Your task to perform on an android device: add a contact Image 0: 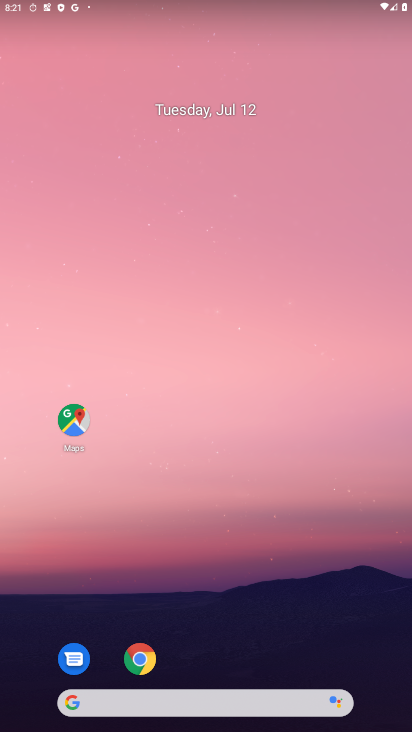
Step 0: press back button
Your task to perform on an android device: add a contact Image 1: 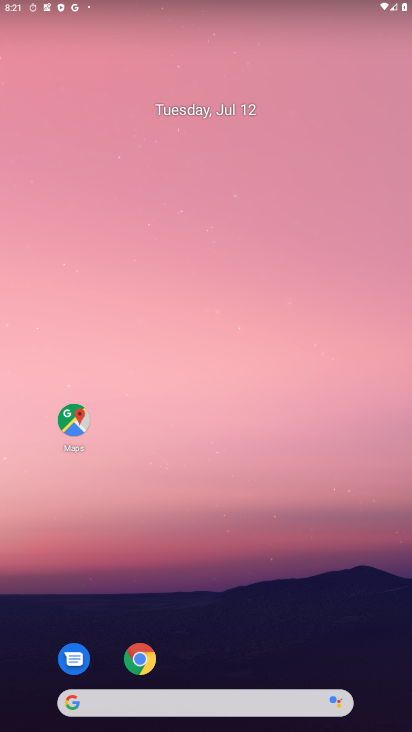
Step 1: drag from (278, 718) to (177, 282)
Your task to perform on an android device: add a contact Image 2: 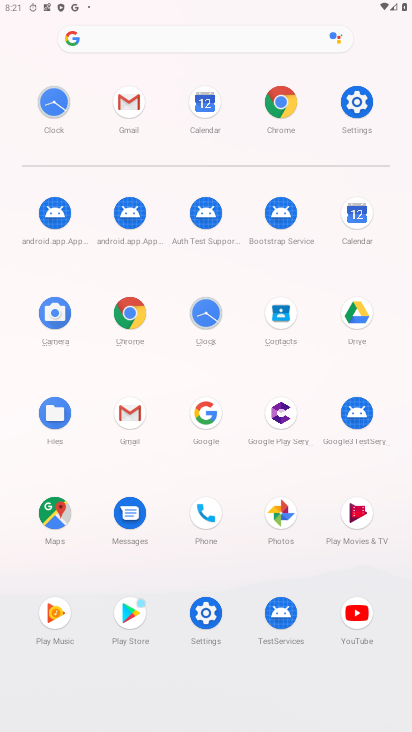
Step 2: click (281, 301)
Your task to perform on an android device: add a contact Image 3: 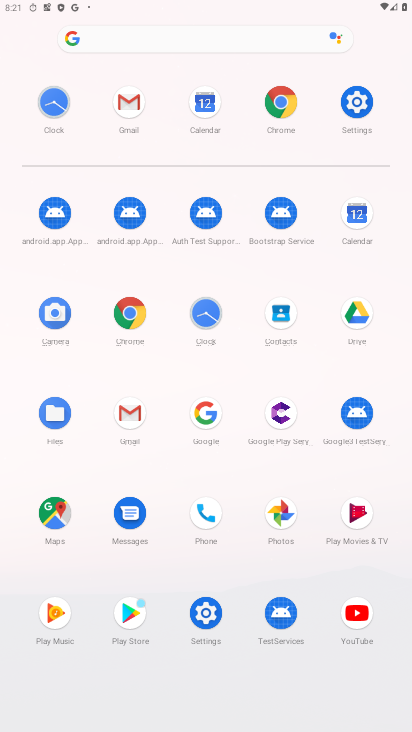
Step 3: click (282, 301)
Your task to perform on an android device: add a contact Image 4: 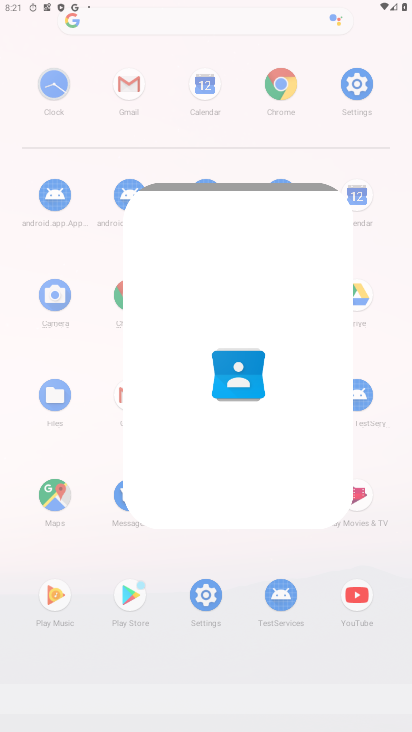
Step 4: click (282, 301)
Your task to perform on an android device: add a contact Image 5: 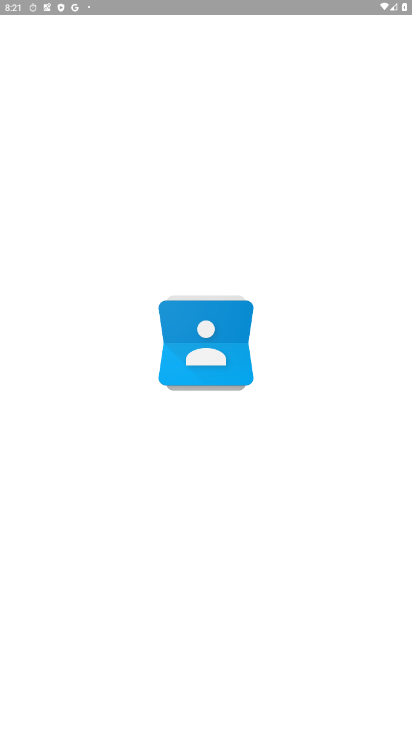
Step 5: click (283, 302)
Your task to perform on an android device: add a contact Image 6: 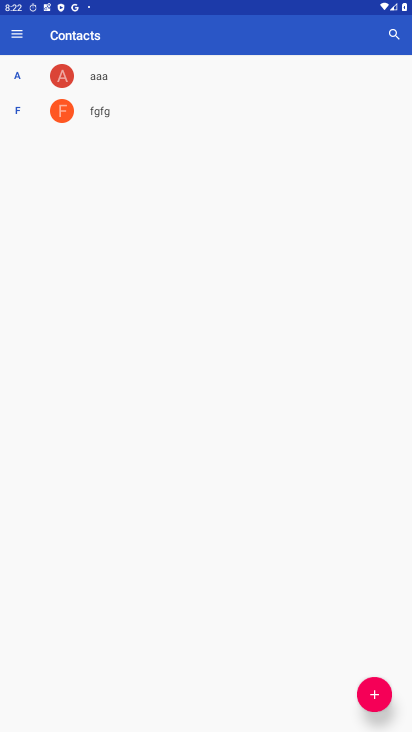
Step 6: click (377, 697)
Your task to perform on an android device: add a contact Image 7: 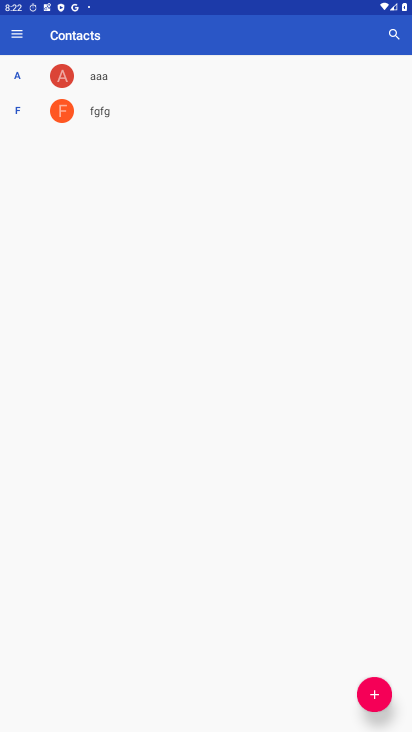
Step 7: click (377, 696)
Your task to perform on an android device: add a contact Image 8: 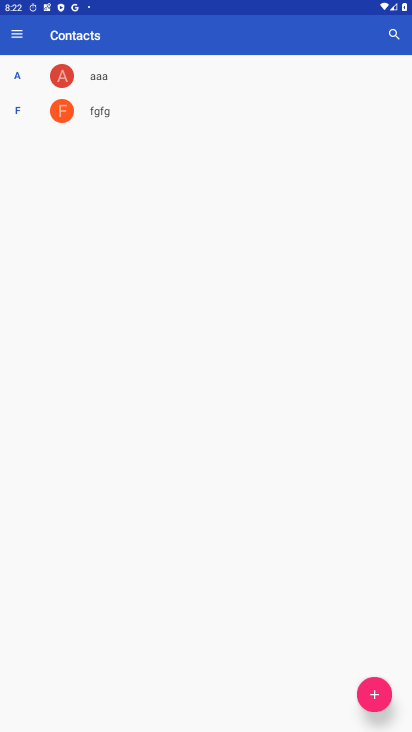
Step 8: click (377, 696)
Your task to perform on an android device: add a contact Image 9: 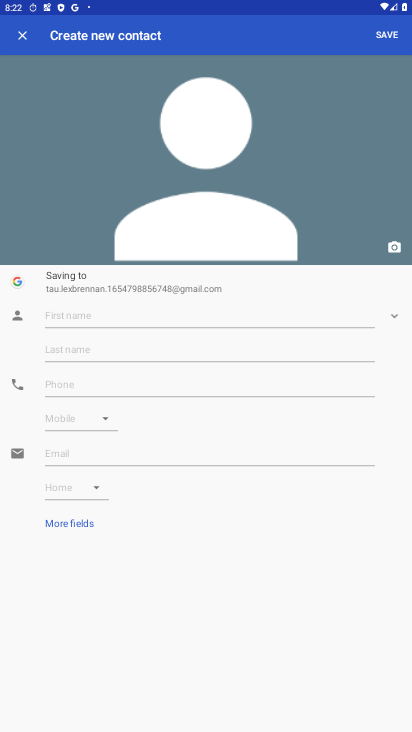
Step 9: click (102, 346)
Your task to perform on an android device: add a contact Image 10: 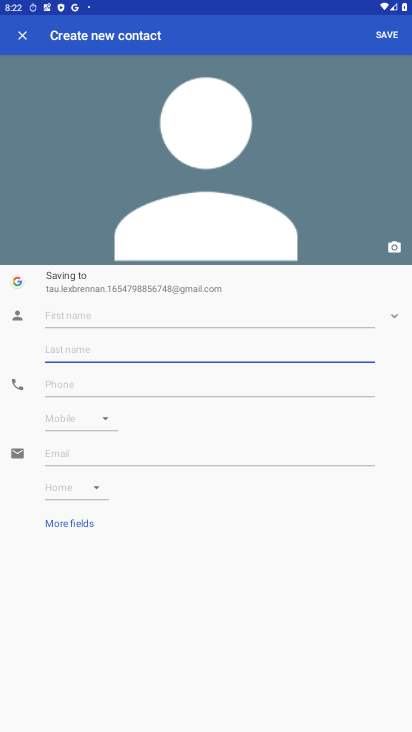
Step 10: click (84, 346)
Your task to perform on an android device: add a contact Image 11: 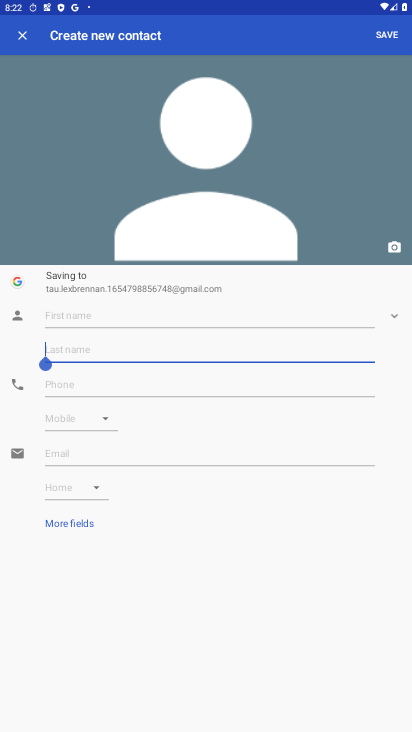
Step 11: click (84, 346)
Your task to perform on an android device: add a contact Image 12: 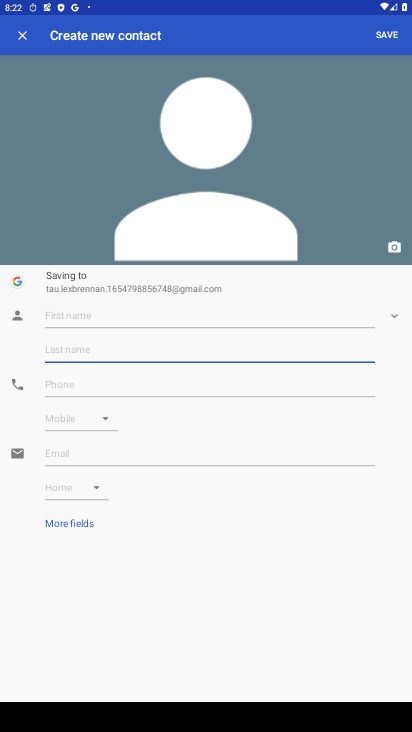
Step 12: click (59, 303)
Your task to perform on an android device: add a contact Image 13: 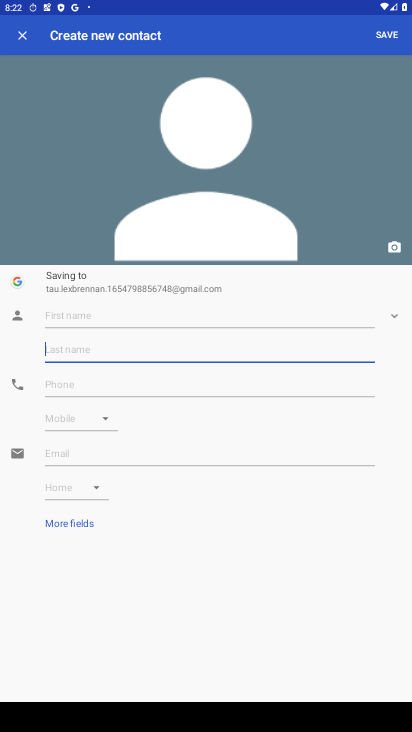
Step 13: click (65, 311)
Your task to perform on an android device: add a contact Image 14: 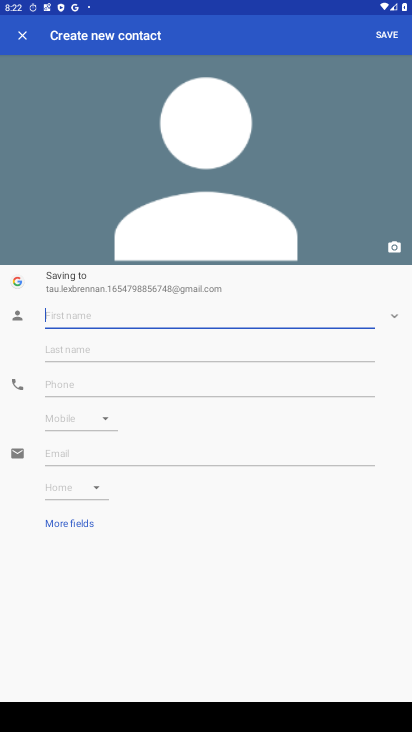
Step 14: type "chgvjhhbjh"
Your task to perform on an android device: add a contact Image 15: 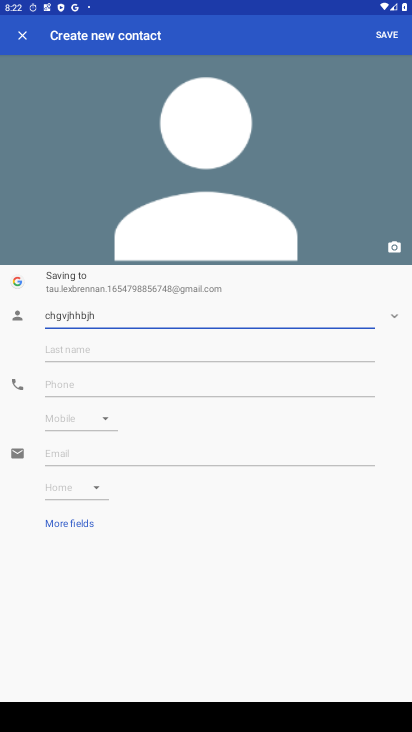
Step 15: click (62, 382)
Your task to perform on an android device: add a contact Image 16: 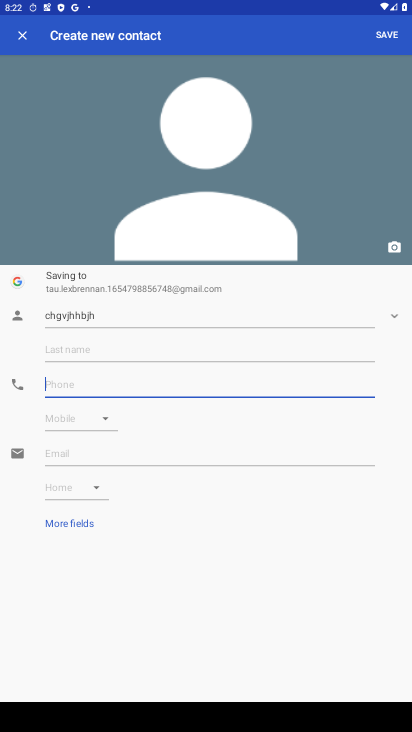
Step 16: click (62, 382)
Your task to perform on an android device: add a contact Image 17: 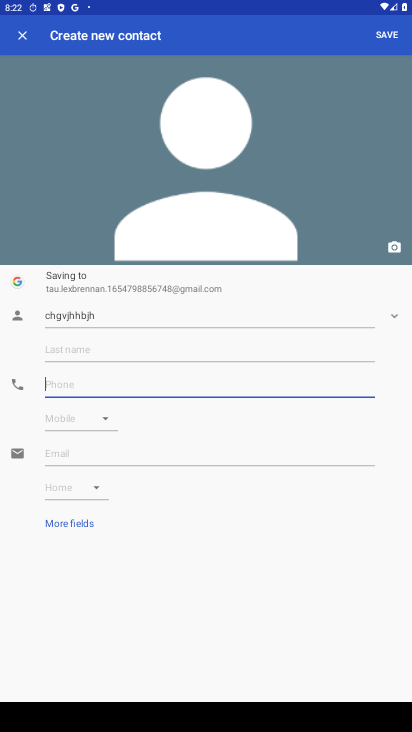
Step 17: click (62, 382)
Your task to perform on an android device: add a contact Image 18: 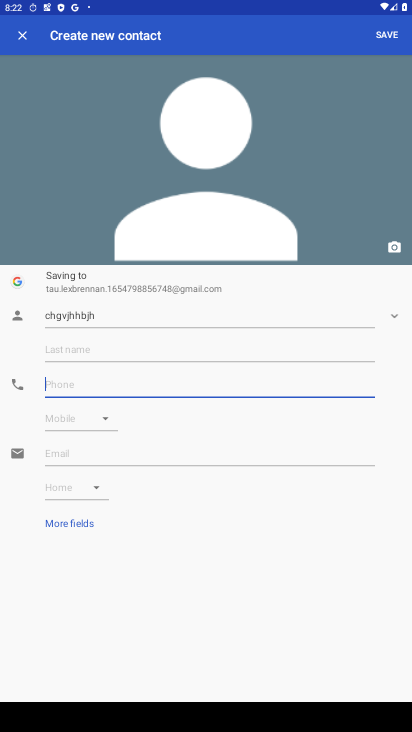
Step 18: click (62, 382)
Your task to perform on an android device: add a contact Image 19: 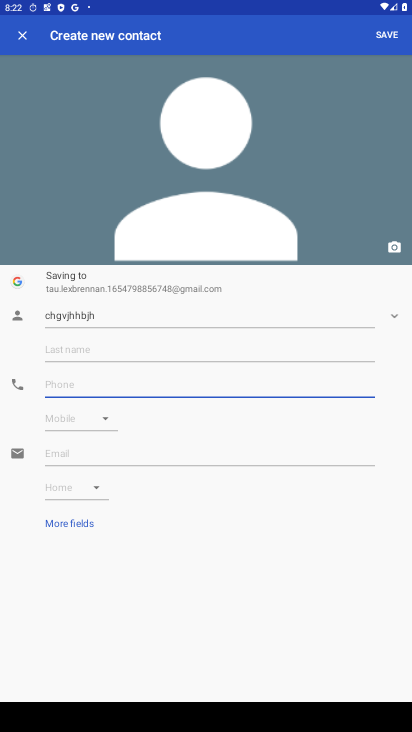
Step 19: click (62, 382)
Your task to perform on an android device: add a contact Image 20: 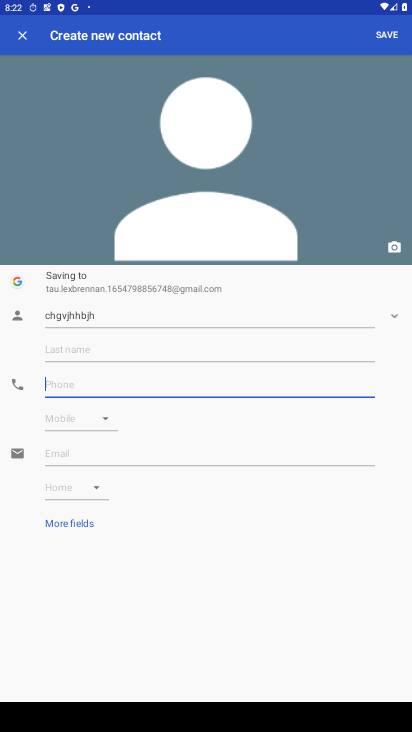
Step 20: type "77667678y7788"
Your task to perform on an android device: add a contact Image 21: 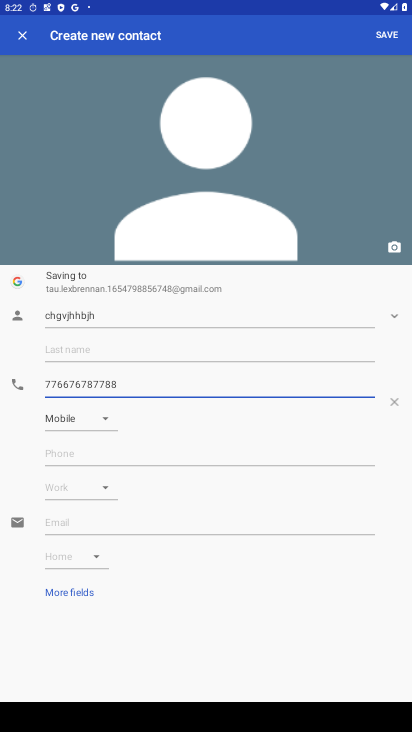
Step 21: click (391, 31)
Your task to perform on an android device: add a contact Image 22: 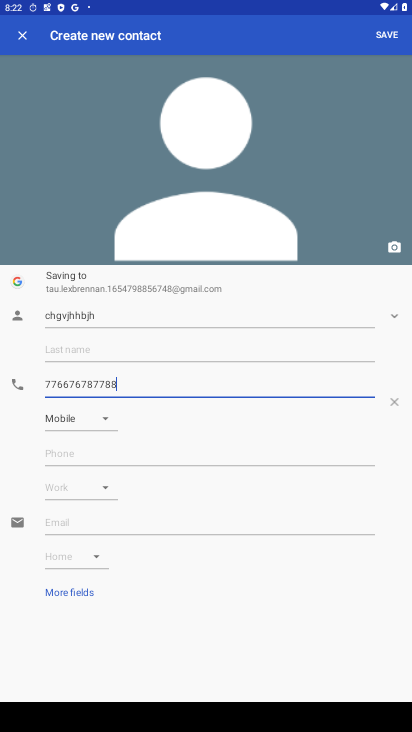
Step 22: click (391, 31)
Your task to perform on an android device: add a contact Image 23: 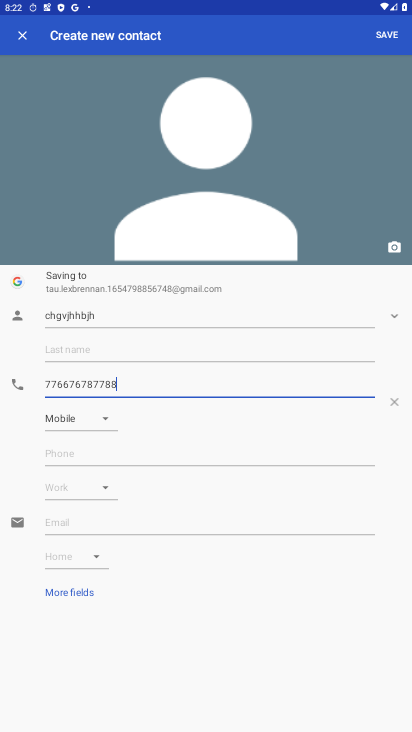
Step 23: click (391, 31)
Your task to perform on an android device: add a contact Image 24: 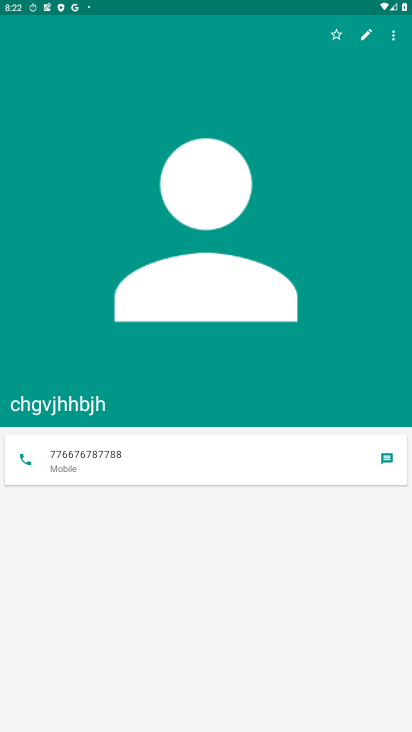
Step 24: task complete